Your task to perform on an android device: Go to Amazon Image 0: 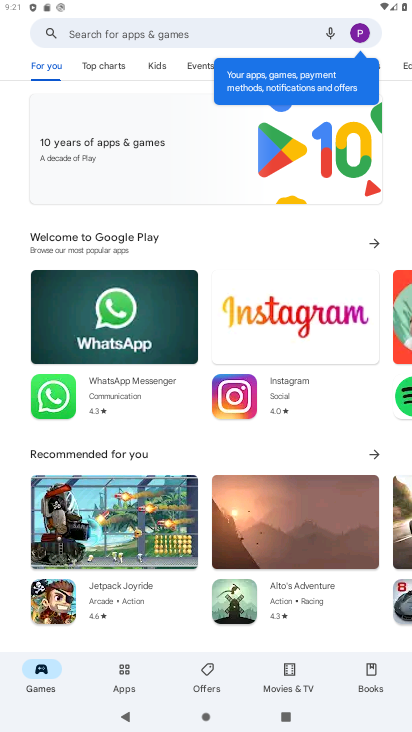
Step 0: press home button
Your task to perform on an android device: Go to Amazon Image 1: 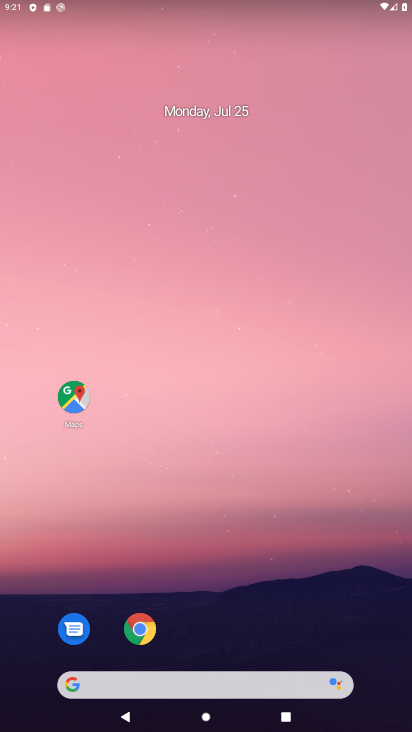
Step 1: drag from (245, 264) to (192, 9)
Your task to perform on an android device: Go to Amazon Image 2: 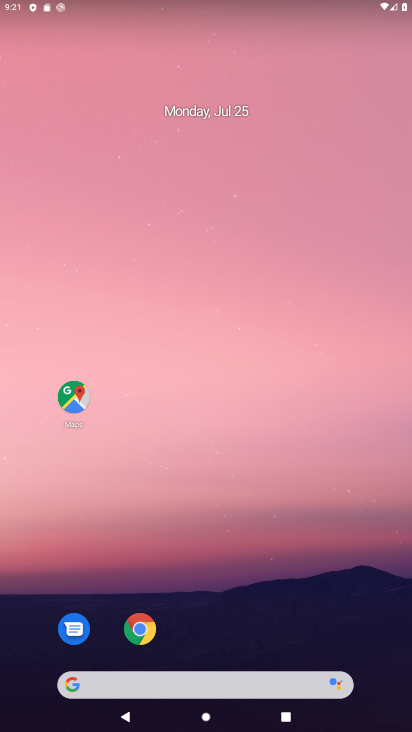
Step 2: drag from (269, 599) to (282, 0)
Your task to perform on an android device: Go to Amazon Image 3: 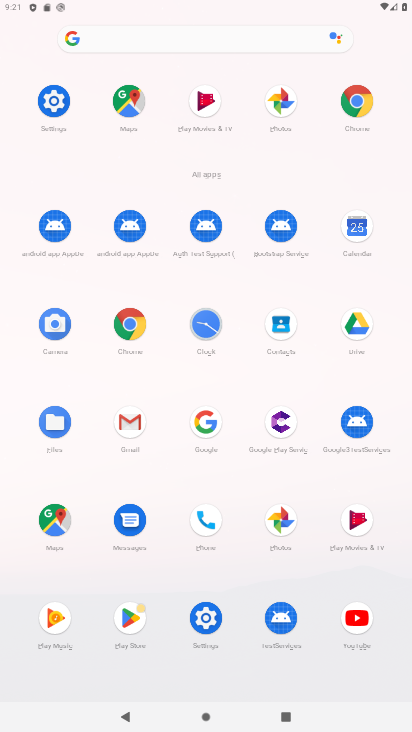
Step 3: click (362, 100)
Your task to perform on an android device: Go to Amazon Image 4: 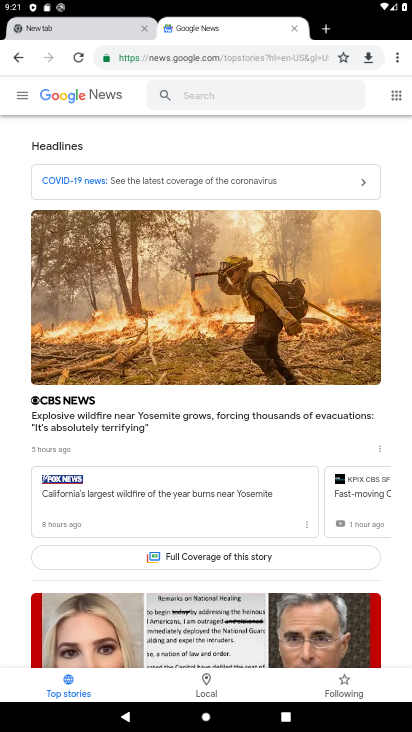
Step 4: click (273, 63)
Your task to perform on an android device: Go to Amazon Image 5: 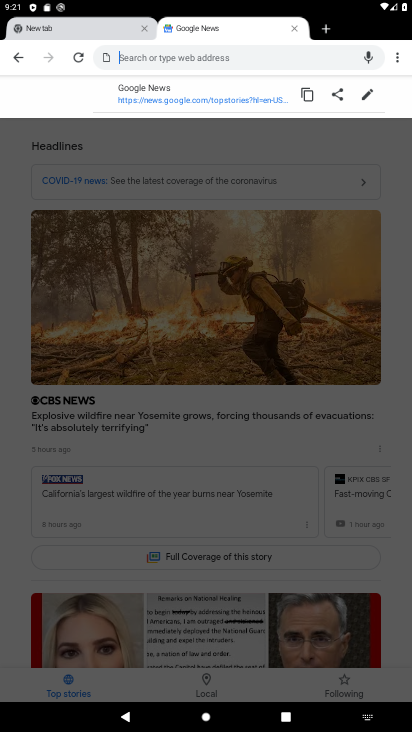
Step 5: type "amazon"
Your task to perform on an android device: Go to Amazon Image 6: 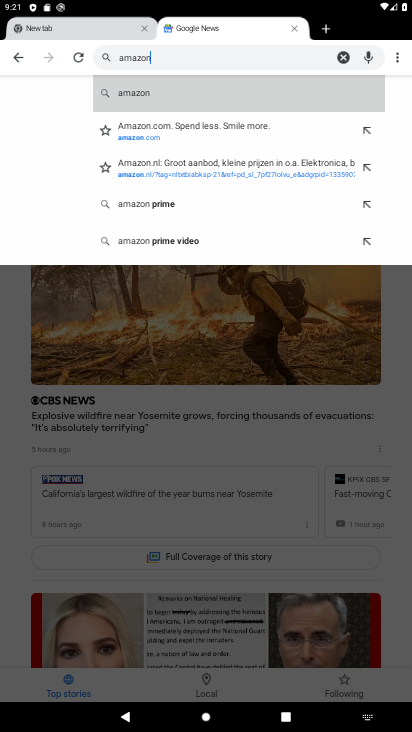
Step 6: click (146, 138)
Your task to perform on an android device: Go to Amazon Image 7: 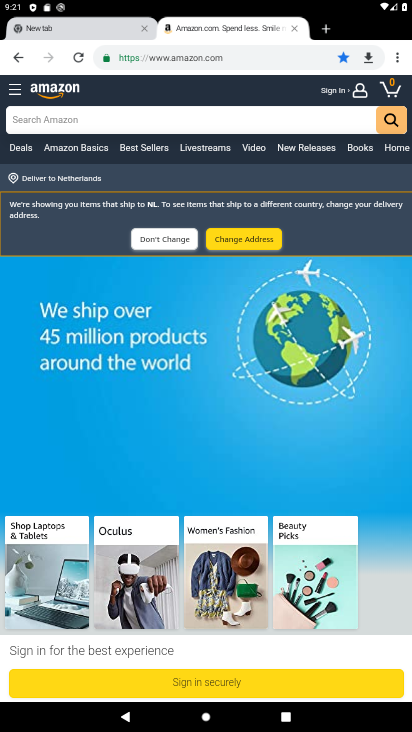
Step 7: task complete